Your task to perform on an android device: open sync settings in chrome Image 0: 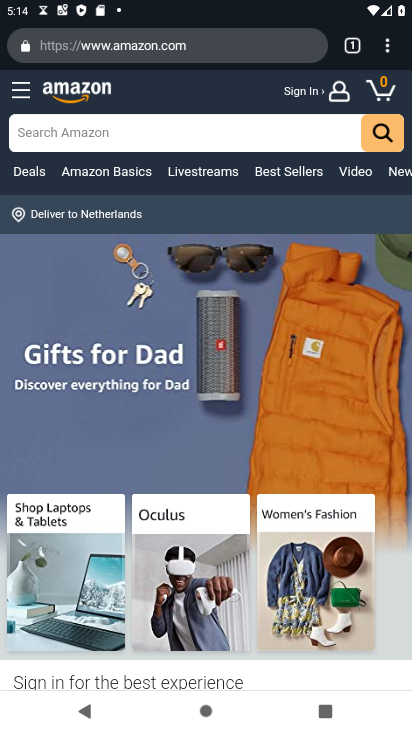
Step 0: press back button
Your task to perform on an android device: open sync settings in chrome Image 1: 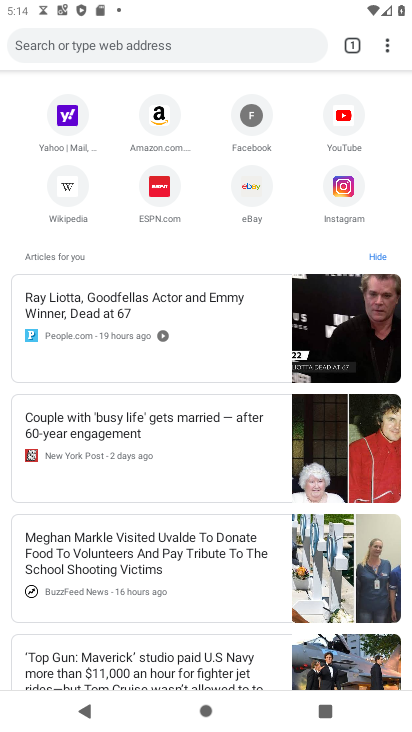
Step 1: drag from (377, 33) to (225, 388)
Your task to perform on an android device: open sync settings in chrome Image 2: 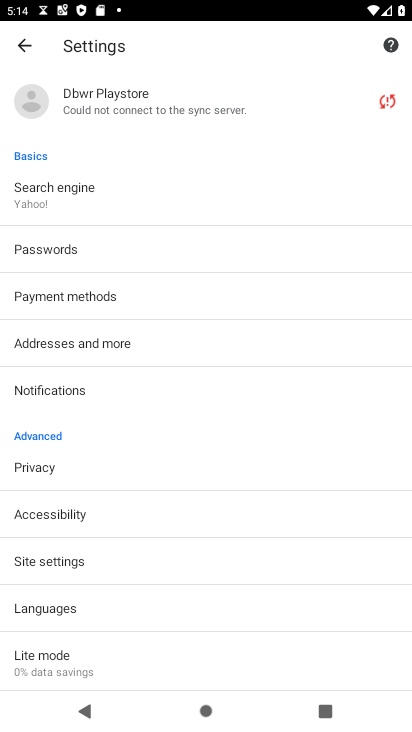
Step 2: click (122, 109)
Your task to perform on an android device: open sync settings in chrome Image 3: 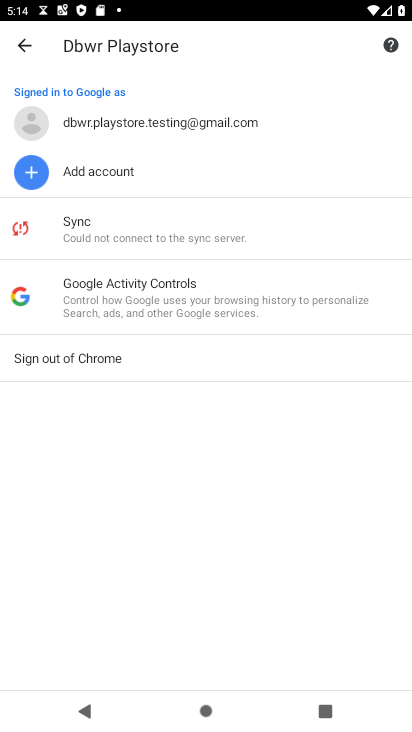
Step 3: task complete